Your task to perform on an android device: set the stopwatch Image 0: 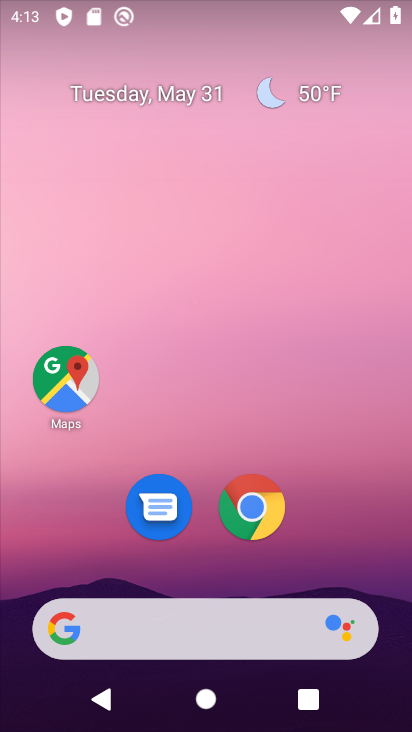
Step 0: drag from (302, 463) to (281, 43)
Your task to perform on an android device: set the stopwatch Image 1: 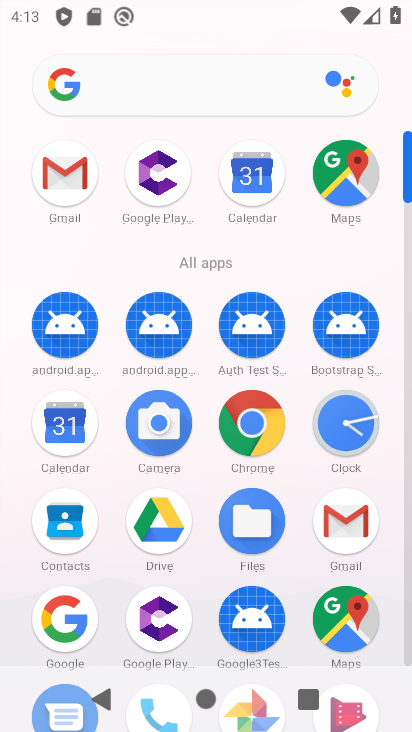
Step 1: click (348, 426)
Your task to perform on an android device: set the stopwatch Image 2: 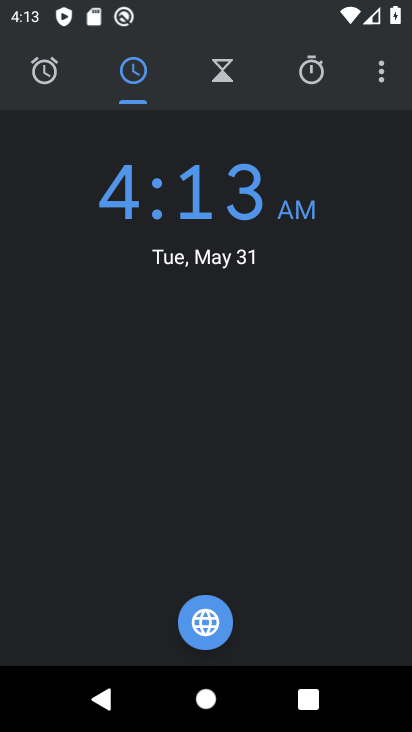
Step 2: click (311, 77)
Your task to perform on an android device: set the stopwatch Image 3: 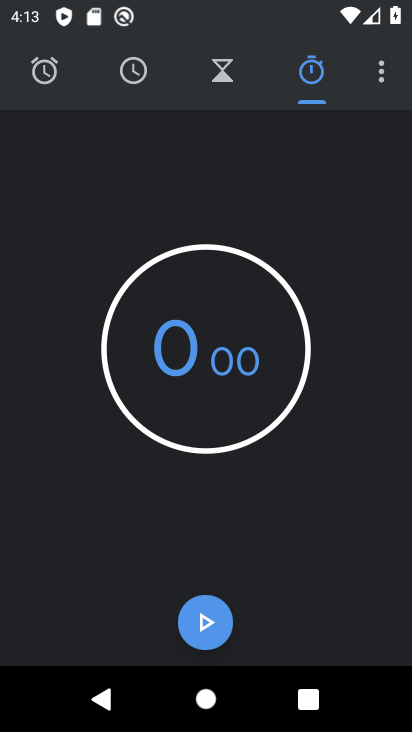
Step 3: task complete